Your task to perform on an android device: open a bookmark in the chrome app Image 0: 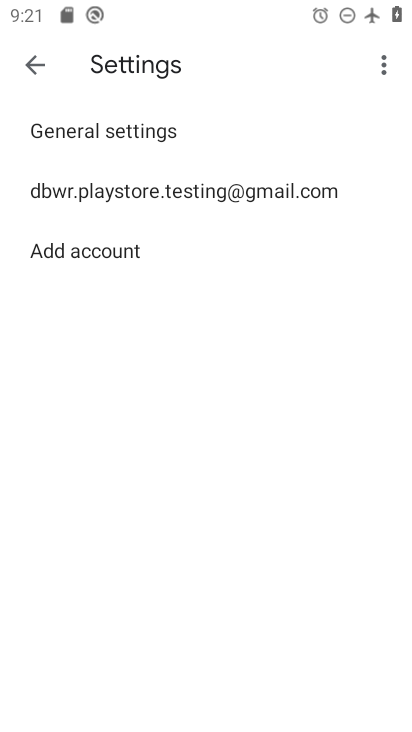
Step 0: press home button
Your task to perform on an android device: open a bookmark in the chrome app Image 1: 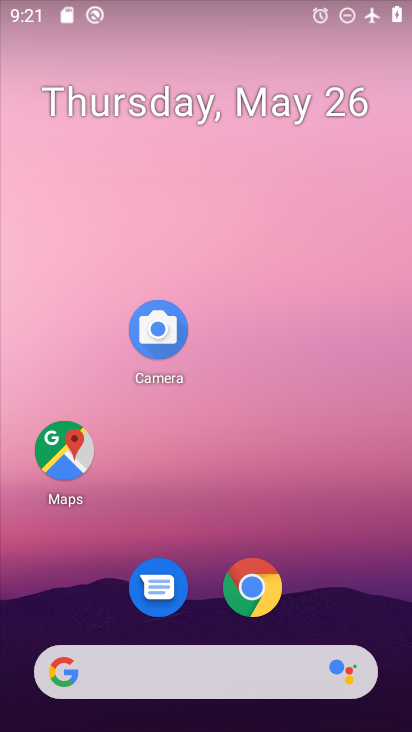
Step 1: click (260, 578)
Your task to perform on an android device: open a bookmark in the chrome app Image 2: 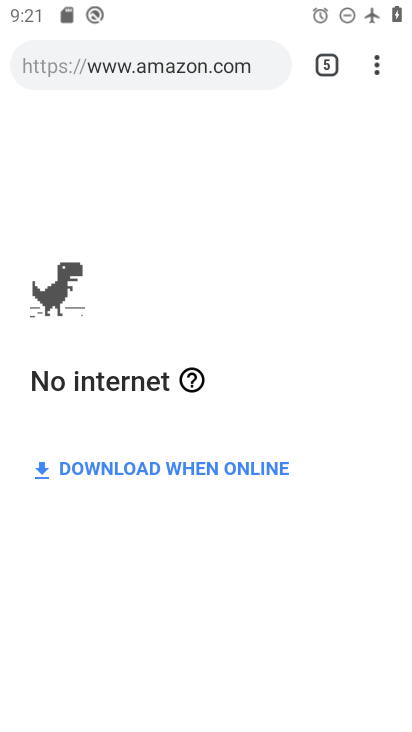
Step 2: click (371, 69)
Your task to perform on an android device: open a bookmark in the chrome app Image 3: 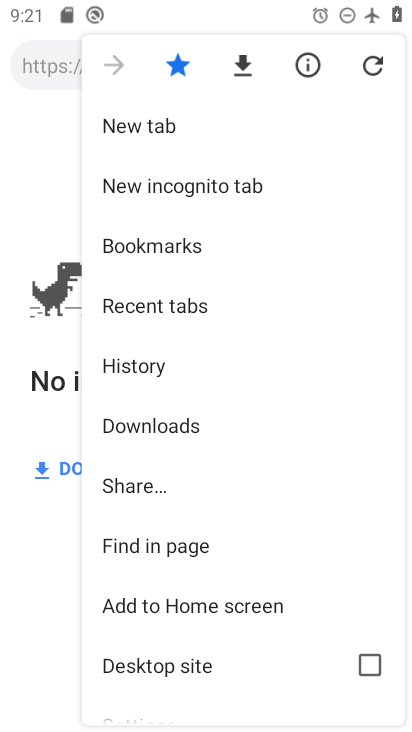
Step 3: click (190, 255)
Your task to perform on an android device: open a bookmark in the chrome app Image 4: 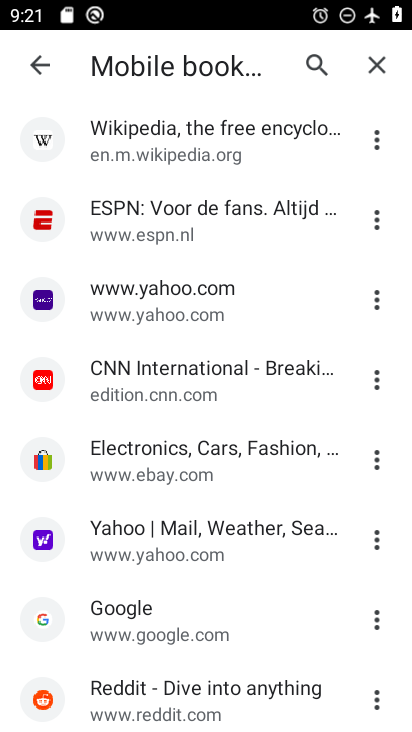
Step 4: drag from (227, 443) to (264, 238)
Your task to perform on an android device: open a bookmark in the chrome app Image 5: 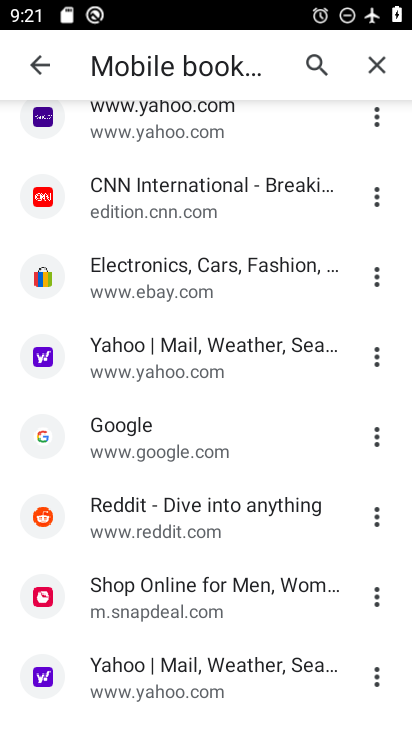
Step 5: drag from (265, 438) to (269, 275)
Your task to perform on an android device: open a bookmark in the chrome app Image 6: 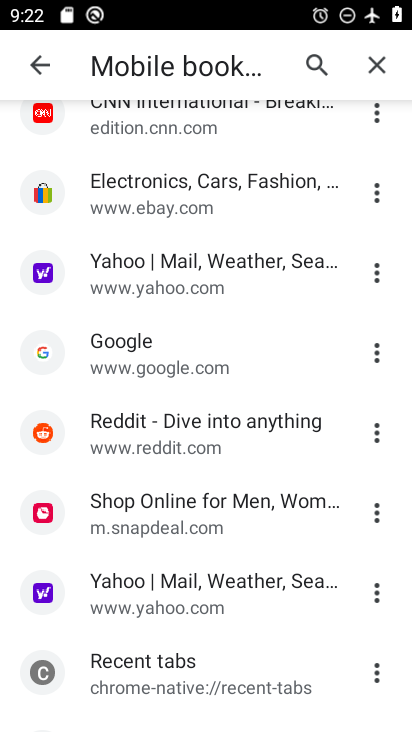
Step 6: click (191, 443)
Your task to perform on an android device: open a bookmark in the chrome app Image 7: 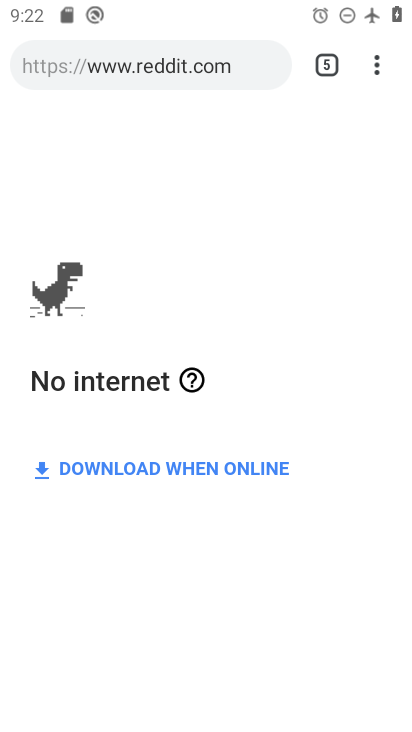
Step 7: task complete